Your task to perform on an android device: Open maps Image 0: 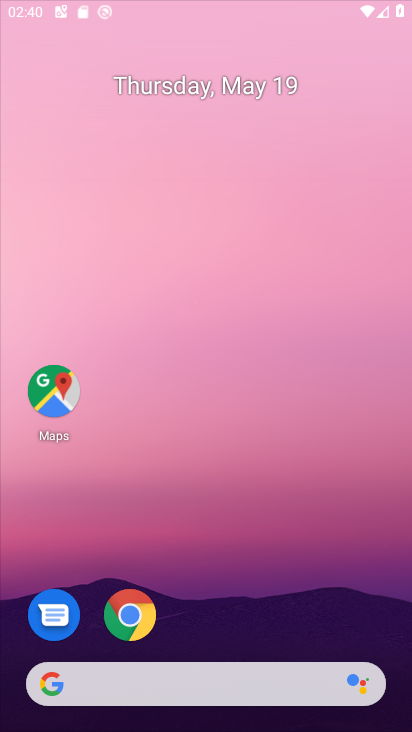
Step 0: drag from (248, 524) to (269, 17)
Your task to perform on an android device: Open maps Image 1: 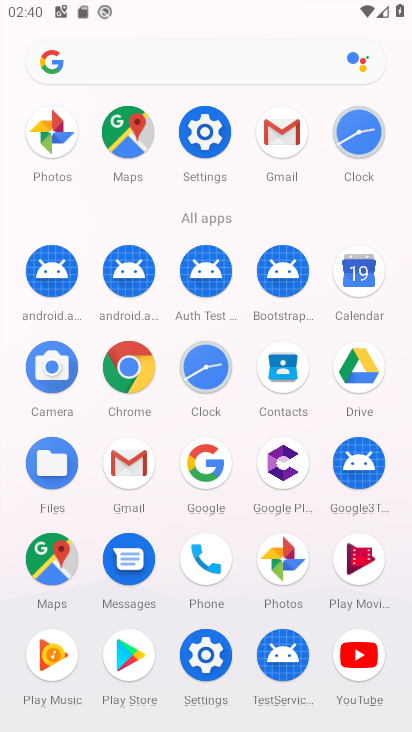
Step 1: drag from (6, 553) to (10, 273)
Your task to perform on an android device: Open maps Image 2: 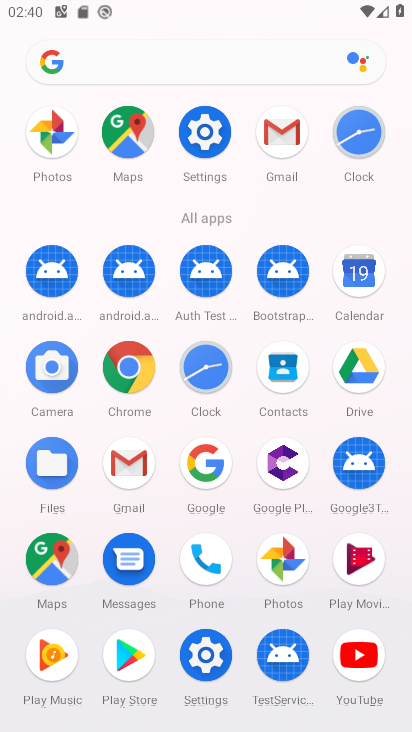
Step 2: click (49, 549)
Your task to perform on an android device: Open maps Image 3: 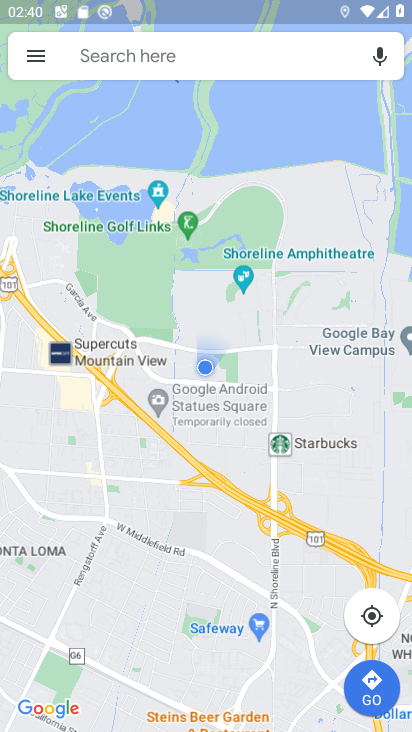
Step 3: task complete